Your task to perform on an android device: find which apps use the phone's location Image 0: 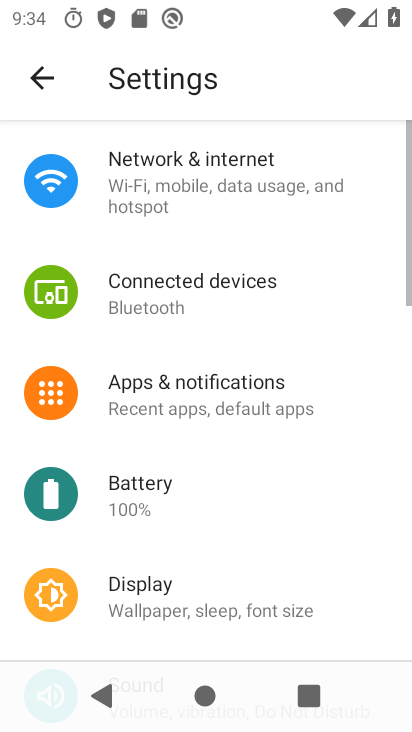
Step 0: press home button
Your task to perform on an android device: find which apps use the phone's location Image 1: 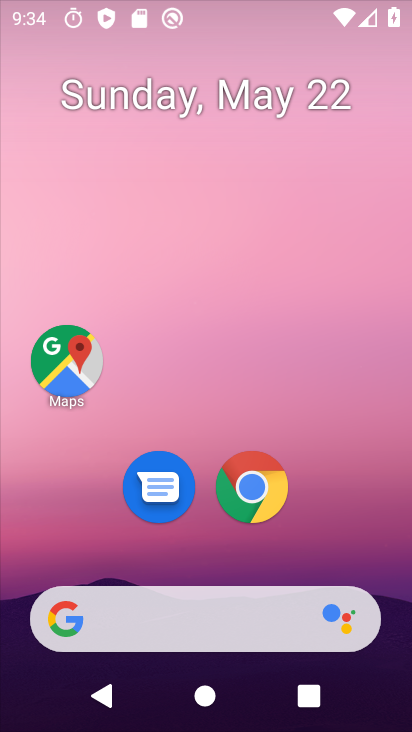
Step 1: drag from (261, 480) to (274, 57)
Your task to perform on an android device: find which apps use the phone's location Image 2: 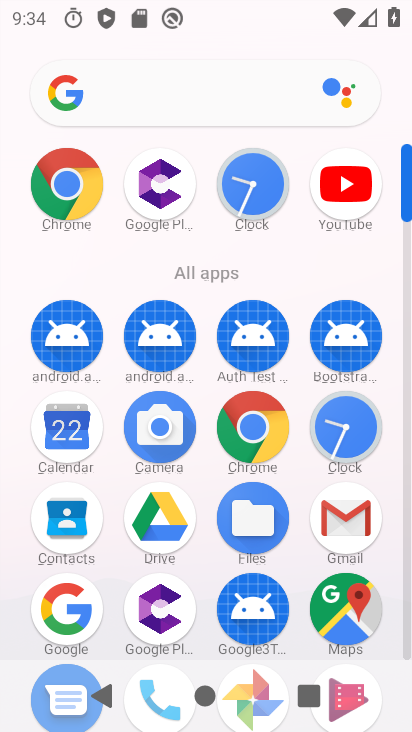
Step 2: drag from (202, 549) to (203, 125)
Your task to perform on an android device: find which apps use the phone's location Image 3: 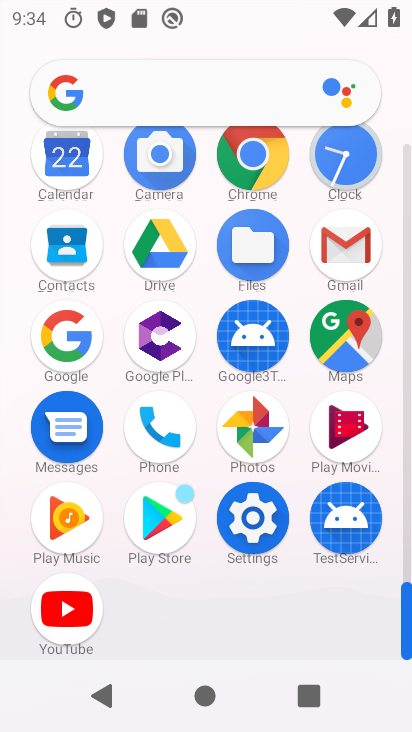
Step 3: click (254, 533)
Your task to perform on an android device: find which apps use the phone's location Image 4: 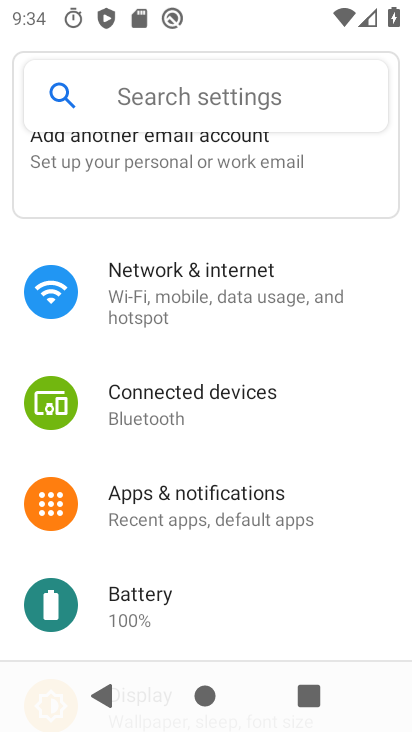
Step 4: drag from (233, 578) to (228, 44)
Your task to perform on an android device: find which apps use the phone's location Image 5: 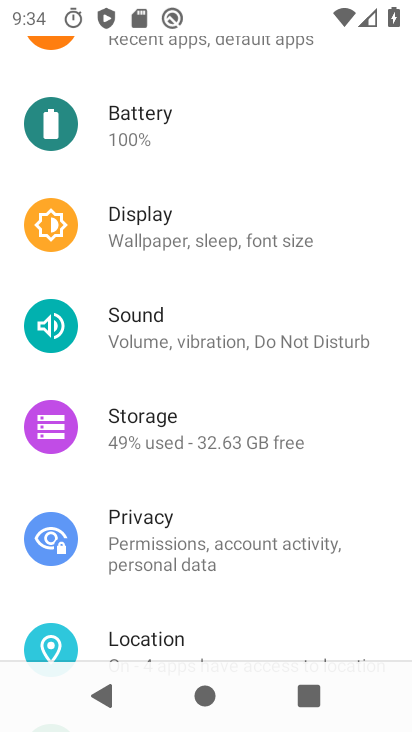
Step 5: click (150, 623)
Your task to perform on an android device: find which apps use the phone's location Image 6: 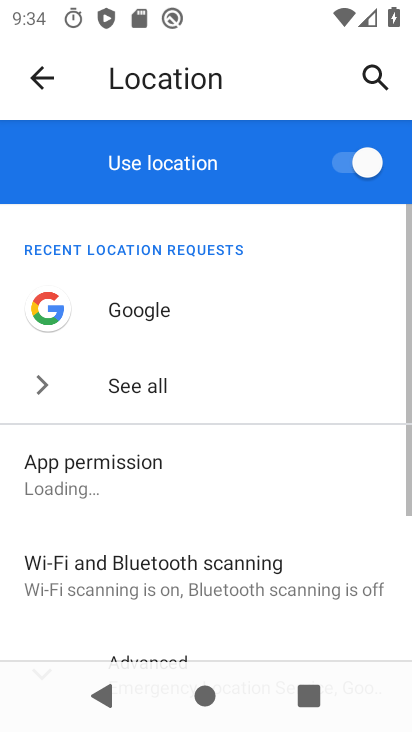
Step 6: drag from (224, 503) to (239, 204)
Your task to perform on an android device: find which apps use the phone's location Image 7: 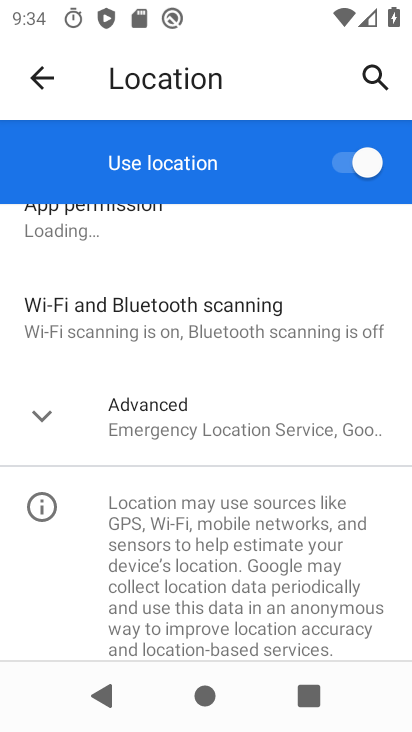
Step 7: click (138, 407)
Your task to perform on an android device: find which apps use the phone's location Image 8: 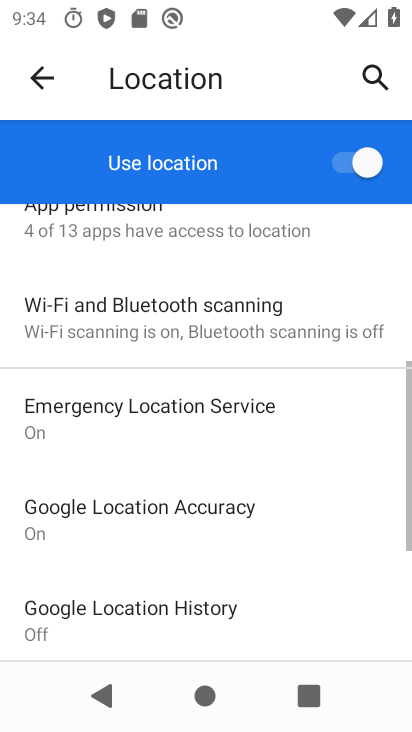
Step 8: drag from (202, 348) to (212, 527)
Your task to perform on an android device: find which apps use the phone's location Image 9: 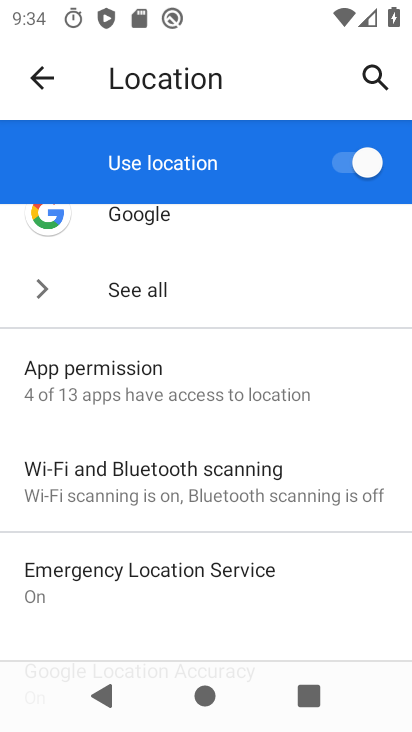
Step 9: click (136, 388)
Your task to perform on an android device: find which apps use the phone's location Image 10: 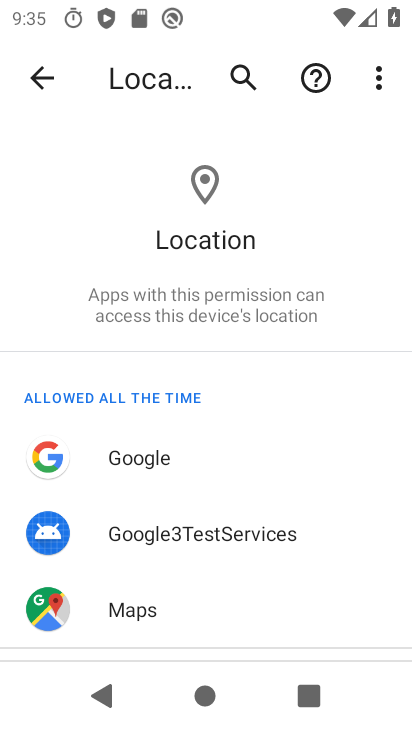
Step 10: task complete